Your task to perform on an android device: turn on airplane mode Image 0: 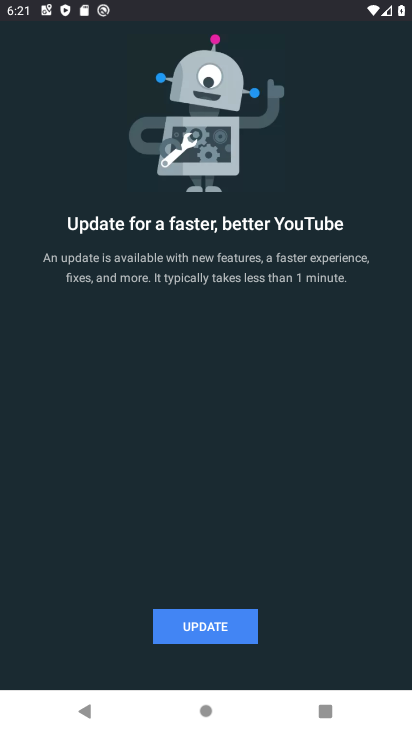
Step 0: press home button
Your task to perform on an android device: turn on airplane mode Image 1: 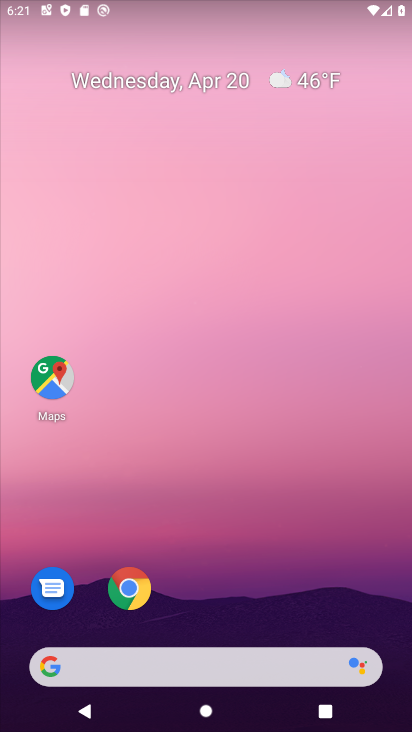
Step 1: drag from (127, 8) to (178, 501)
Your task to perform on an android device: turn on airplane mode Image 2: 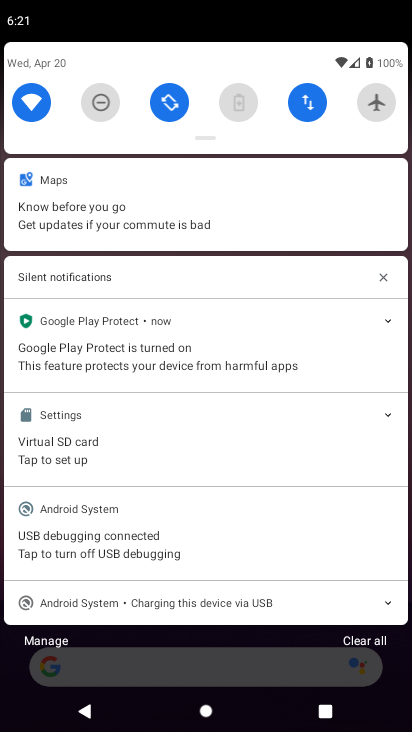
Step 2: click (364, 114)
Your task to perform on an android device: turn on airplane mode Image 3: 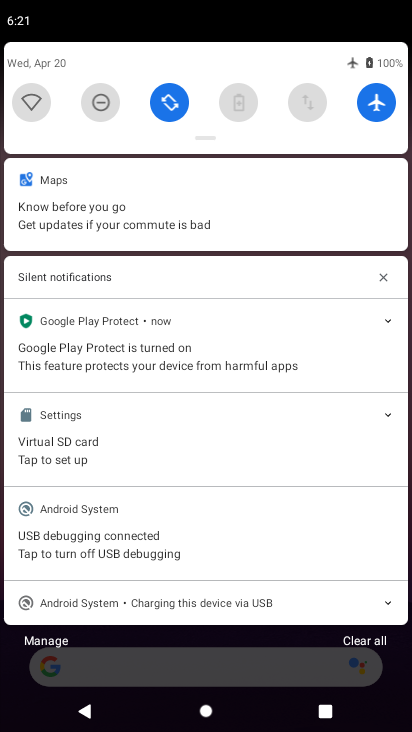
Step 3: task complete